Your task to perform on an android device: check storage Image 0: 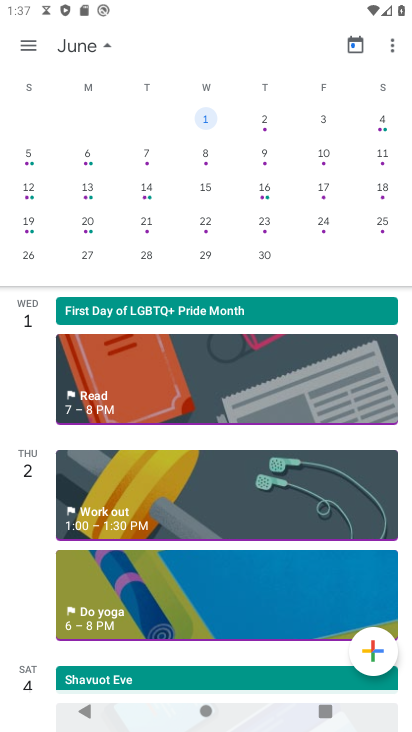
Step 0: press home button
Your task to perform on an android device: check storage Image 1: 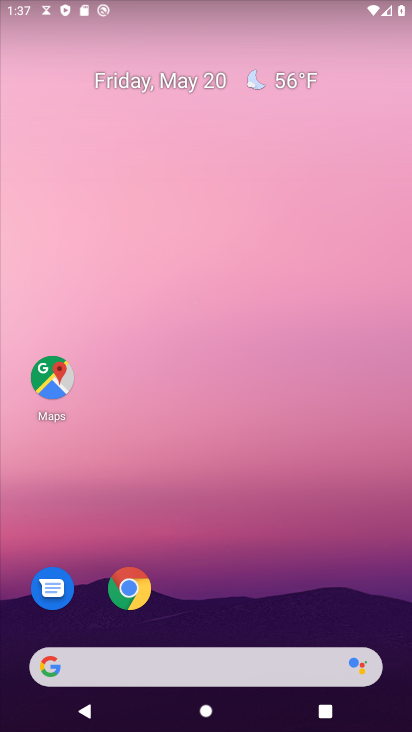
Step 1: drag from (34, 568) to (198, 223)
Your task to perform on an android device: check storage Image 2: 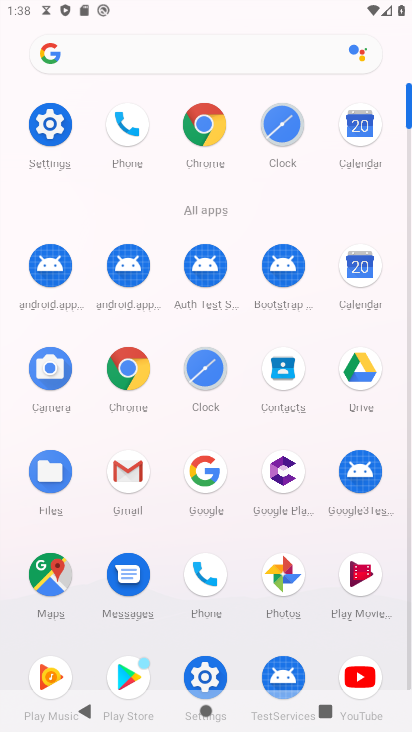
Step 2: click (41, 122)
Your task to perform on an android device: check storage Image 3: 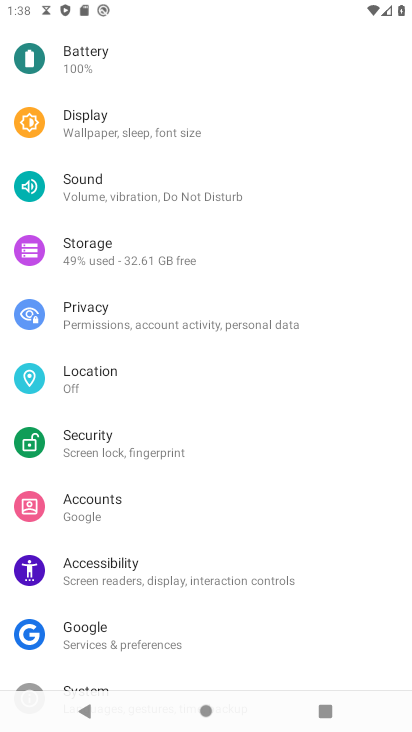
Step 3: drag from (134, 33) to (135, 489)
Your task to perform on an android device: check storage Image 4: 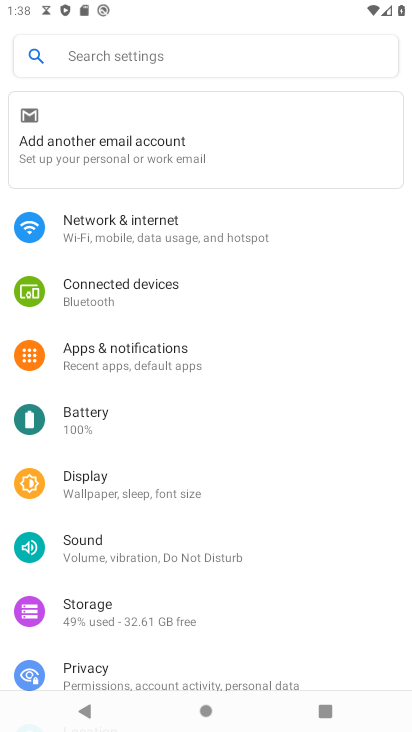
Step 4: click (77, 609)
Your task to perform on an android device: check storage Image 5: 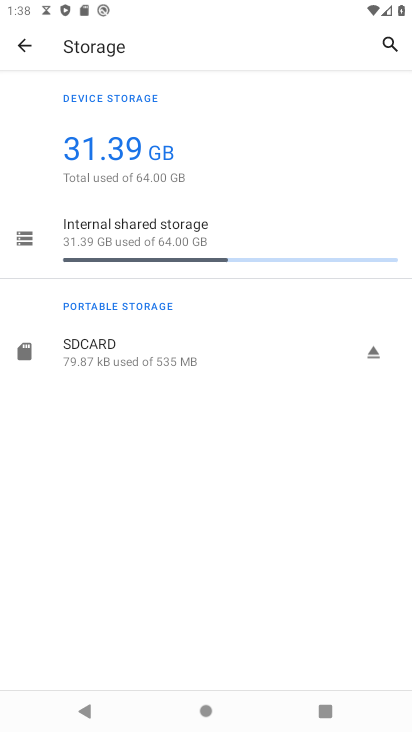
Step 5: task complete